Your task to perform on an android device: What is the news today? Image 0: 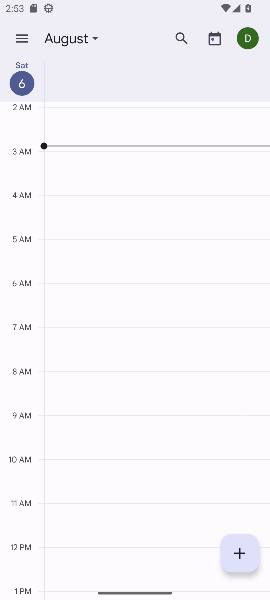
Step 0: press home button
Your task to perform on an android device: What is the news today? Image 1: 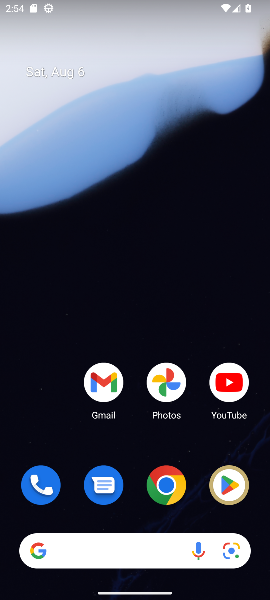
Step 1: task complete